Your task to perform on an android device: clear all cookies in the chrome app Image 0: 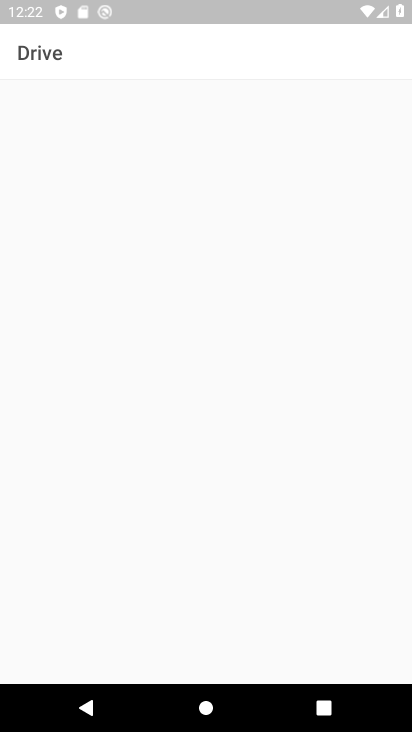
Step 0: press home button
Your task to perform on an android device: clear all cookies in the chrome app Image 1: 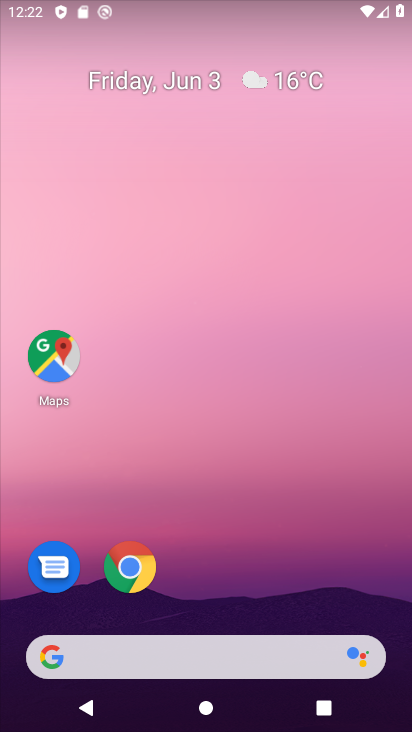
Step 1: click (118, 557)
Your task to perform on an android device: clear all cookies in the chrome app Image 2: 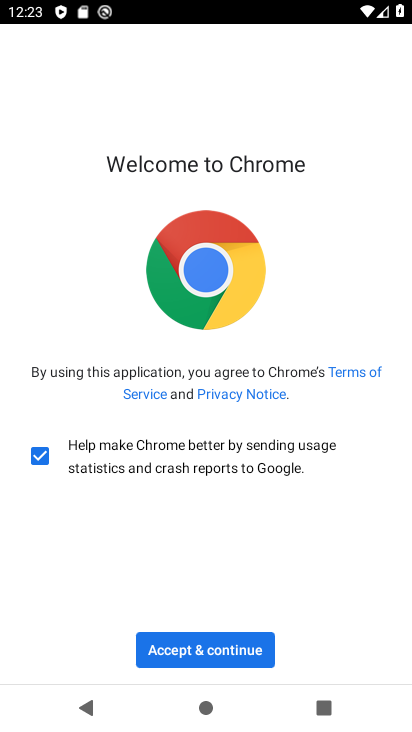
Step 2: click (230, 649)
Your task to perform on an android device: clear all cookies in the chrome app Image 3: 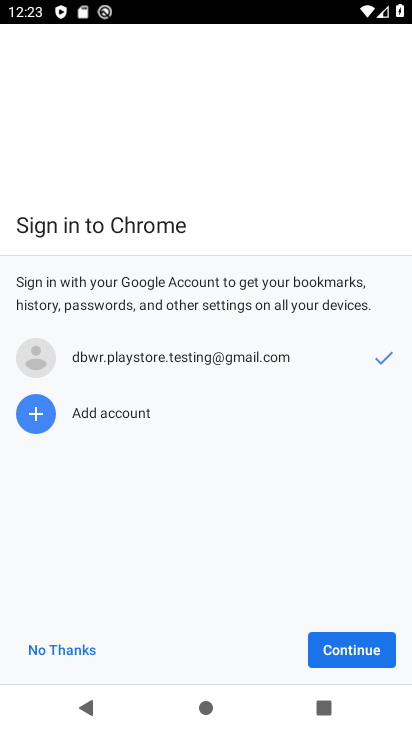
Step 3: click (347, 643)
Your task to perform on an android device: clear all cookies in the chrome app Image 4: 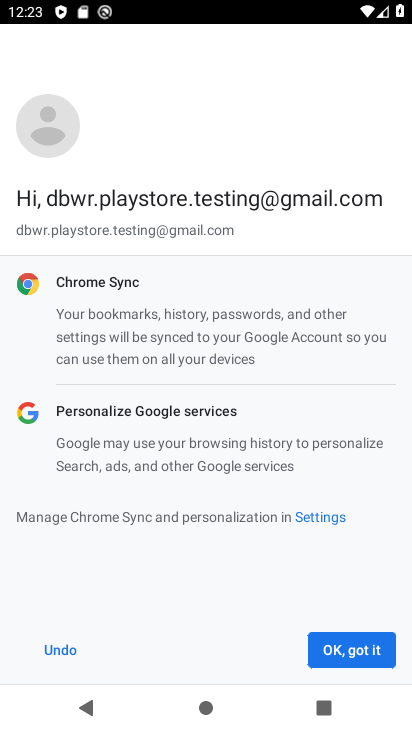
Step 4: click (353, 643)
Your task to perform on an android device: clear all cookies in the chrome app Image 5: 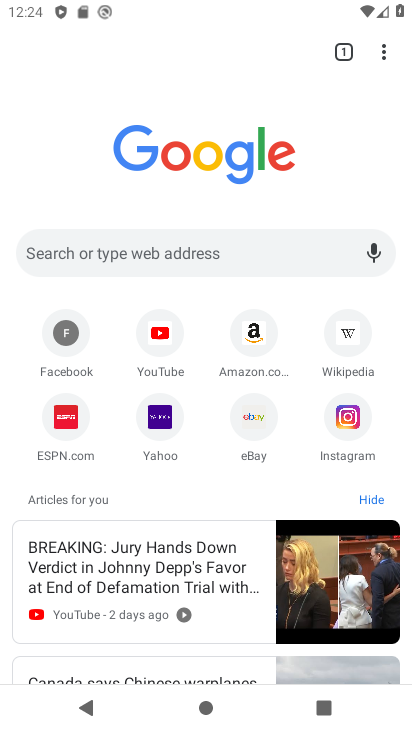
Step 5: click (385, 45)
Your task to perform on an android device: clear all cookies in the chrome app Image 6: 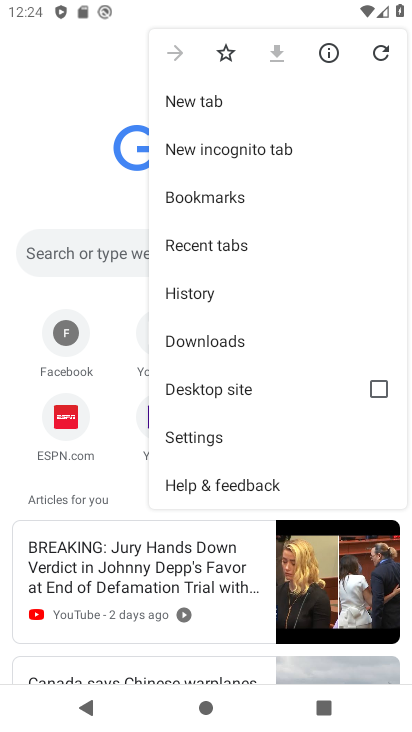
Step 6: click (194, 285)
Your task to perform on an android device: clear all cookies in the chrome app Image 7: 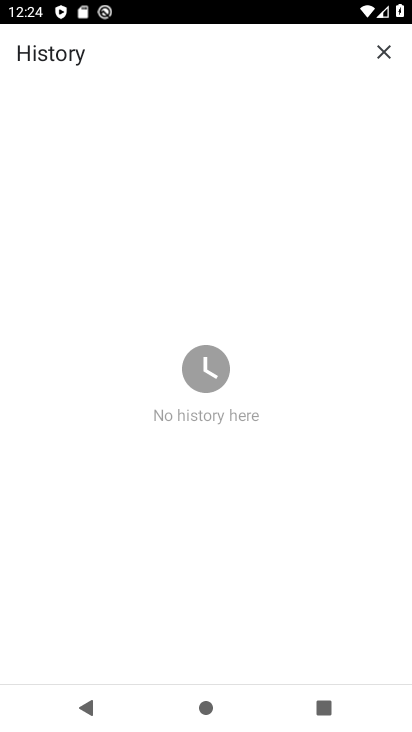
Step 7: task complete